Your task to perform on an android device: Open display settings Image 0: 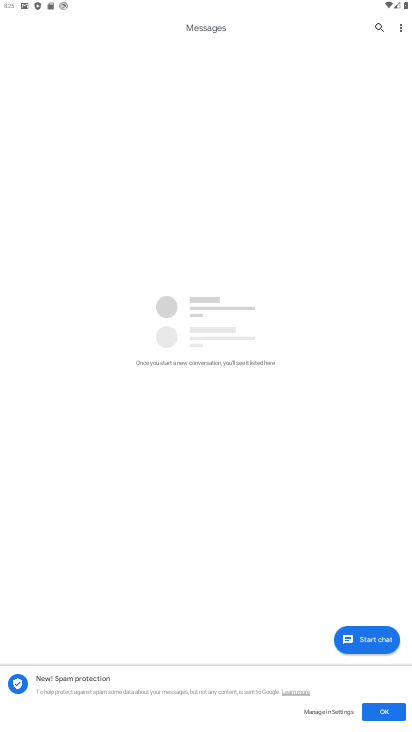
Step 0: press home button
Your task to perform on an android device: Open display settings Image 1: 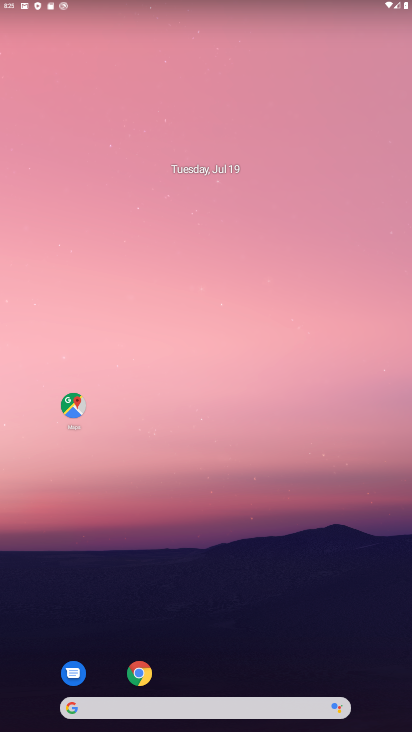
Step 1: drag from (230, 585) to (233, 282)
Your task to perform on an android device: Open display settings Image 2: 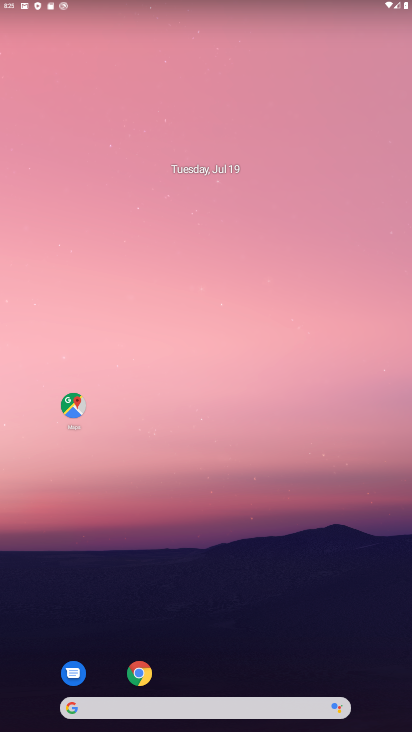
Step 2: drag from (250, 688) to (262, 1)
Your task to perform on an android device: Open display settings Image 3: 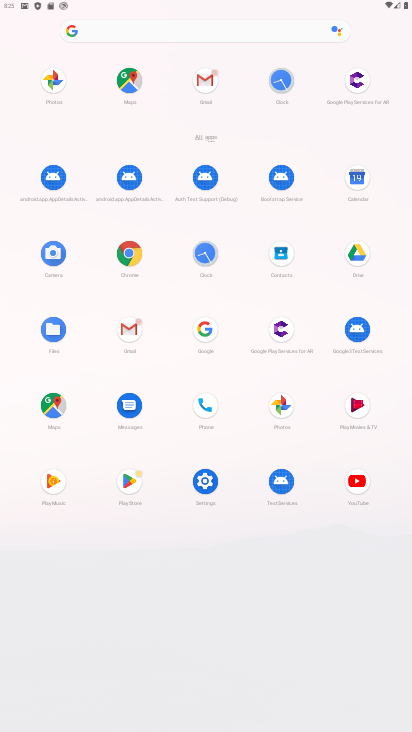
Step 3: click (214, 482)
Your task to perform on an android device: Open display settings Image 4: 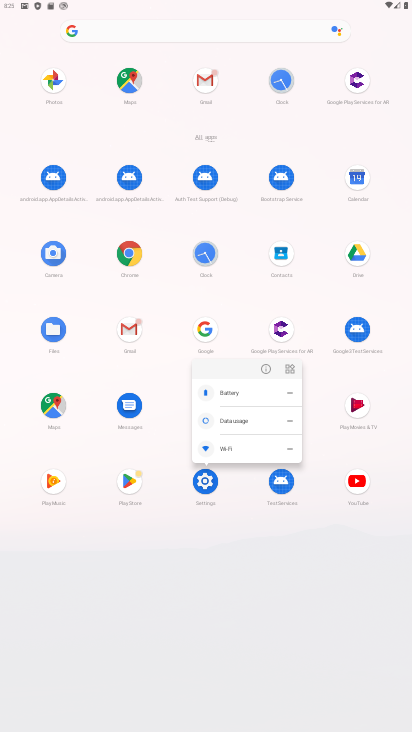
Step 4: click (204, 484)
Your task to perform on an android device: Open display settings Image 5: 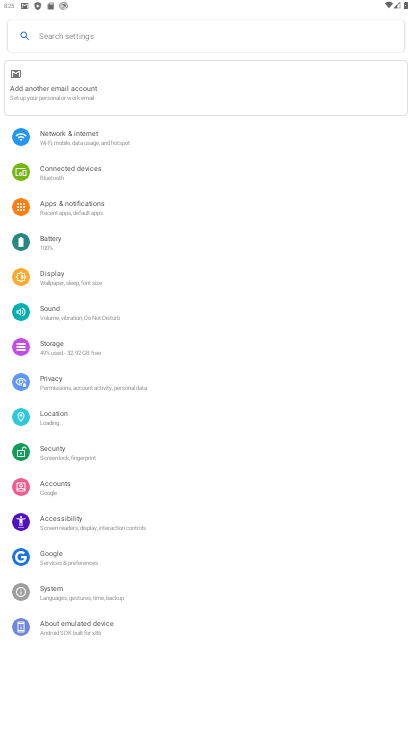
Step 5: click (84, 283)
Your task to perform on an android device: Open display settings Image 6: 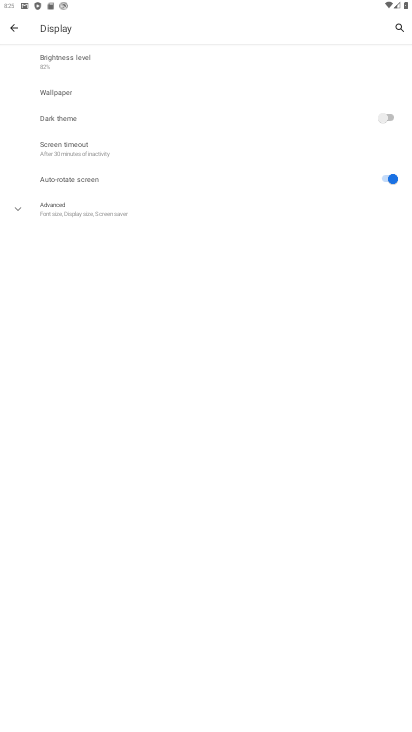
Step 6: task complete